Your task to perform on an android device: toggle priority inbox in the gmail app Image 0: 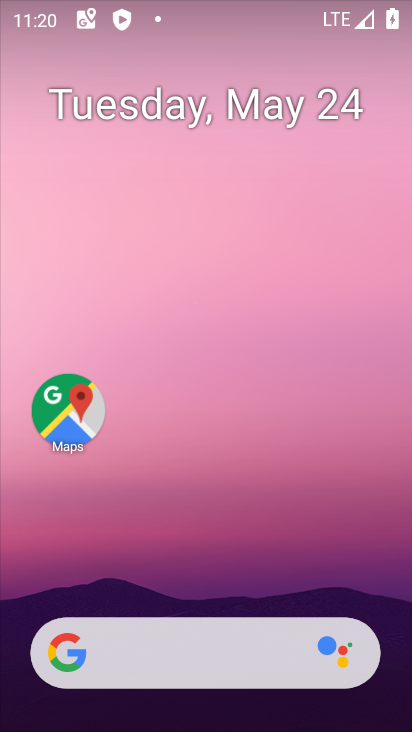
Step 0: drag from (201, 662) to (172, 170)
Your task to perform on an android device: toggle priority inbox in the gmail app Image 1: 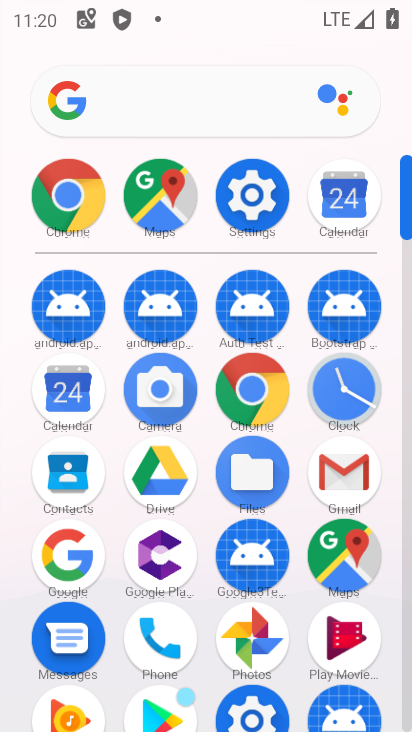
Step 1: click (362, 463)
Your task to perform on an android device: toggle priority inbox in the gmail app Image 2: 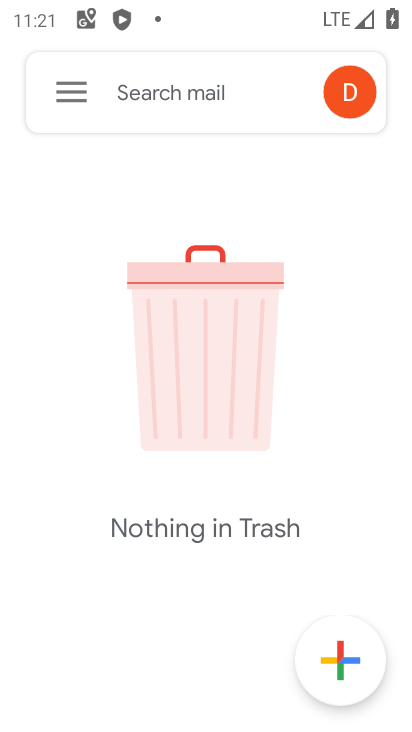
Step 2: click (78, 92)
Your task to perform on an android device: toggle priority inbox in the gmail app Image 3: 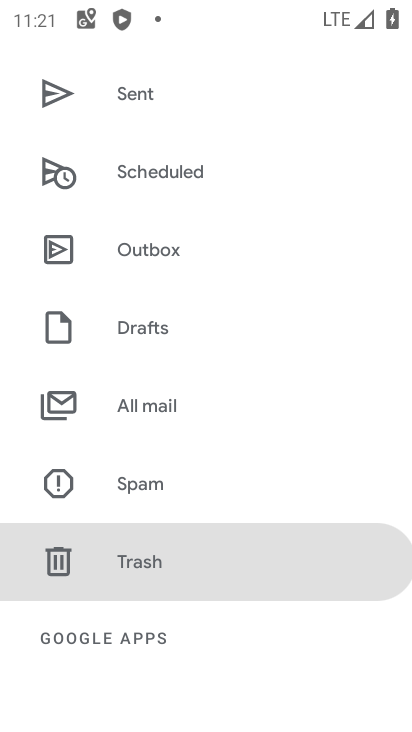
Step 3: drag from (170, 541) to (1, 415)
Your task to perform on an android device: toggle priority inbox in the gmail app Image 4: 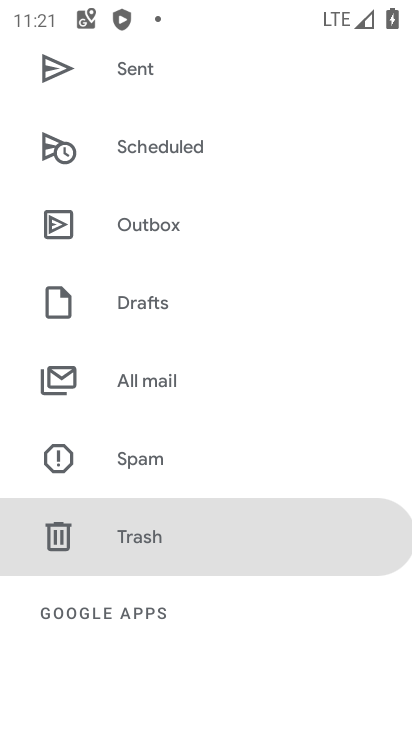
Step 4: drag from (178, 680) to (169, 138)
Your task to perform on an android device: toggle priority inbox in the gmail app Image 5: 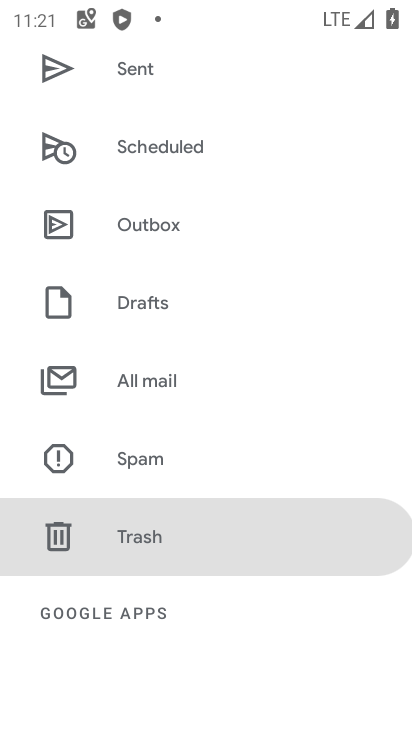
Step 5: drag from (195, 587) to (54, 4)
Your task to perform on an android device: toggle priority inbox in the gmail app Image 6: 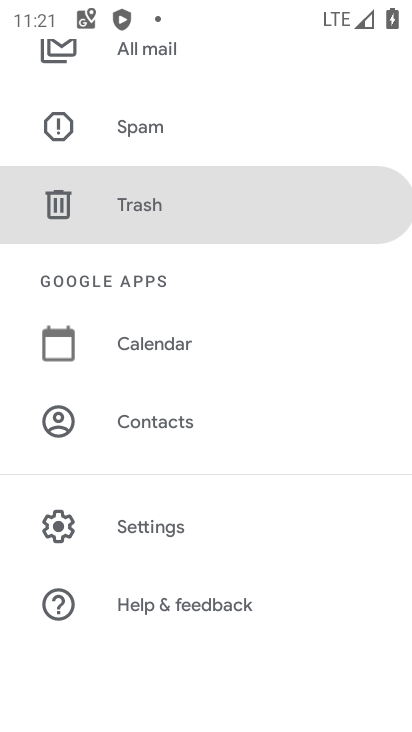
Step 6: click (183, 515)
Your task to perform on an android device: toggle priority inbox in the gmail app Image 7: 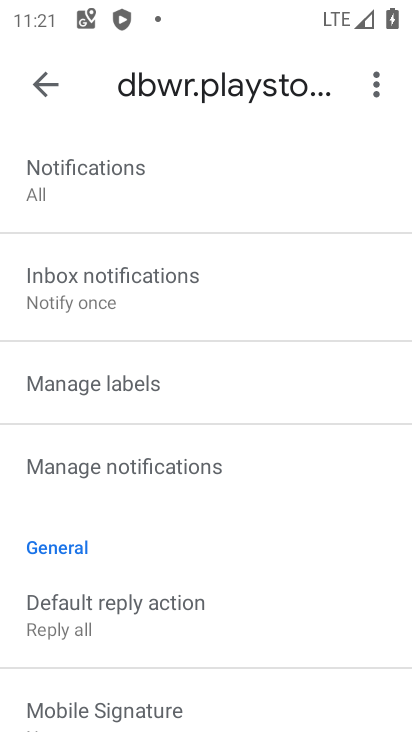
Step 7: drag from (124, 172) to (101, 594)
Your task to perform on an android device: toggle priority inbox in the gmail app Image 8: 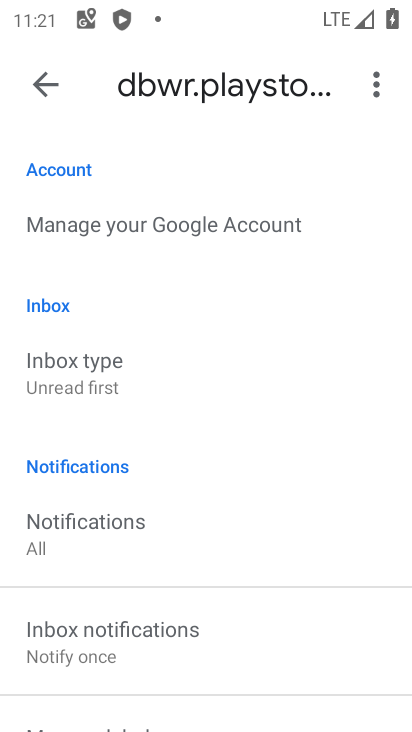
Step 8: drag from (116, 260) to (120, 635)
Your task to perform on an android device: toggle priority inbox in the gmail app Image 9: 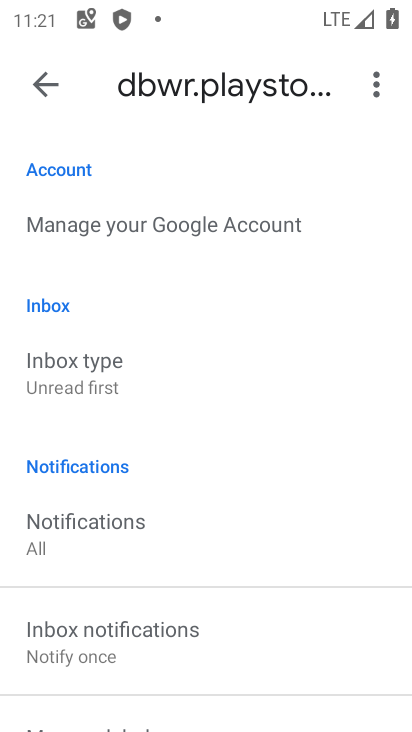
Step 9: click (79, 374)
Your task to perform on an android device: toggle priority inbox in the gmail app Image 10: 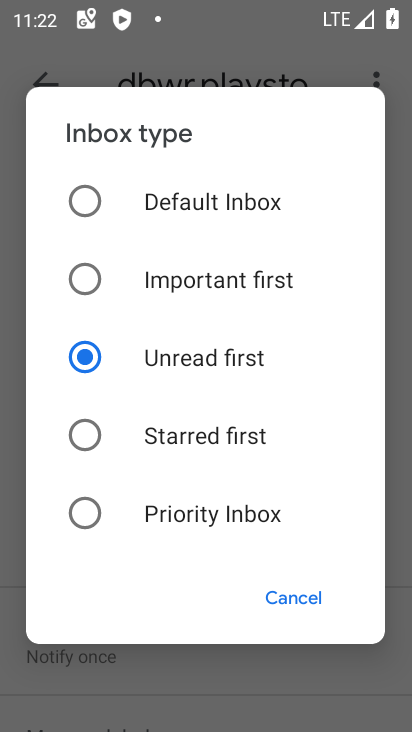
Step 10: click (171, 503)
Your task to perform on an android device: toggle priority inbox in the gmail app Image 11: 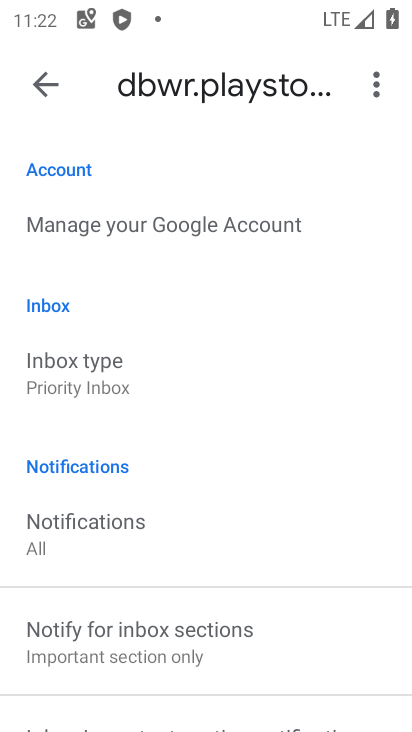
Step 11: task complete